Your task to perform on an android device: turn smart compose on in the gmail app Image 0: 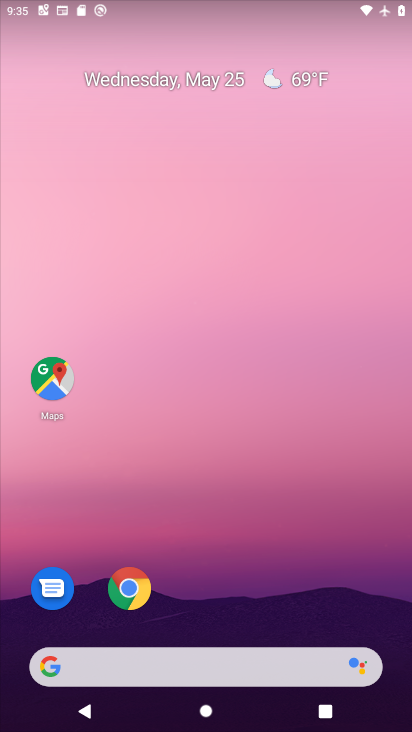
Step 0: drag from (386, 597) to (365, 207)
Your task to perform on an android device: turn smart compose on in the gmail app Image 1: 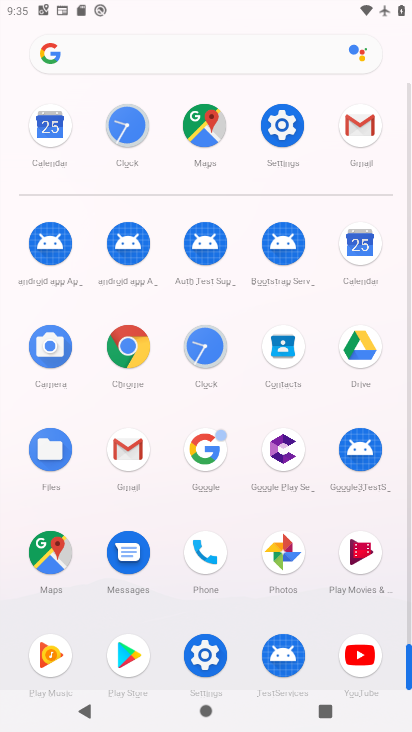
Step 1: click (134, 454)
Your task to perform on an android device: turn smart compose on in the gmail app Image 2: 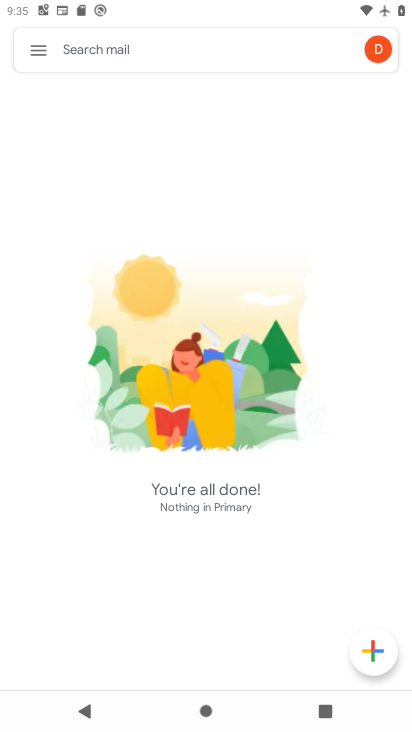
Step 2: click (42, 53)
Your task to perform on an android device: turn smart compose on in the gmail app Image 3: 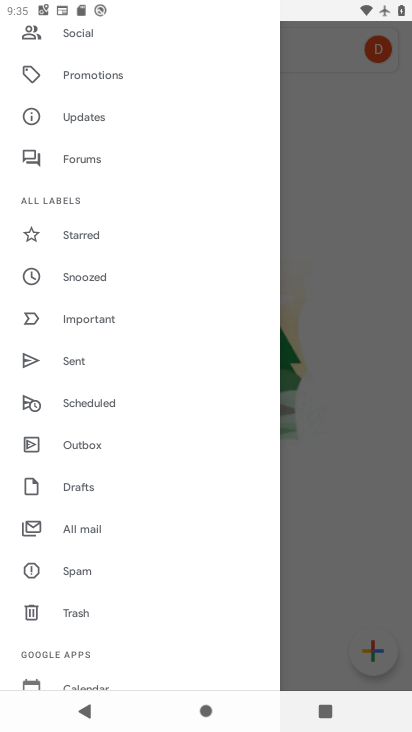
Step 3: drag from (200, 501) to (200, 423)
Your task to perform on an android device: turn smart compose on in the gmail app Image 4: 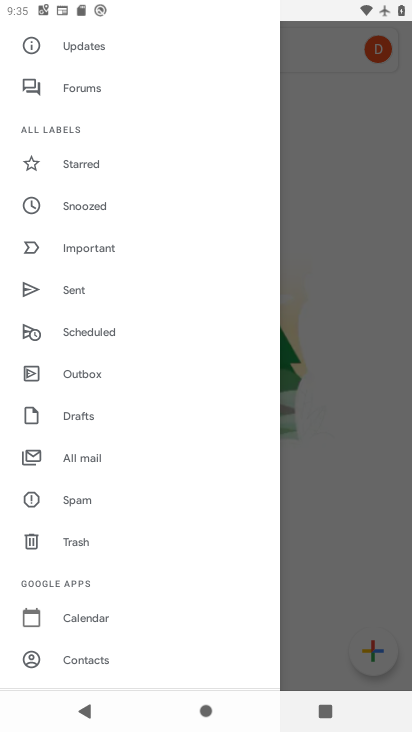
Step 4: drag from (221, 546) to (223, 441)
Your task to perform on an android device: turn smart compose on in the gmail app Image 5: 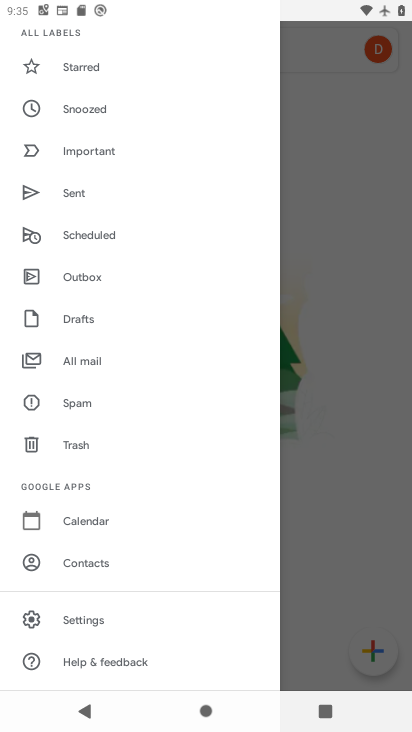
Step 5: drag from (213, 554) to (213, 445)
Your task to perform on an android device: turn smart compose on in the gmail app Image 6: 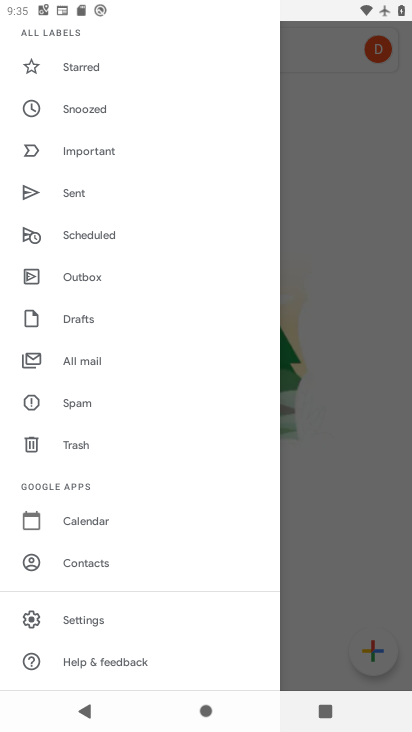
Step 6: click (137, 619)
Your task to perform on an android device: turn smart compose on in the gmail app Image 7: 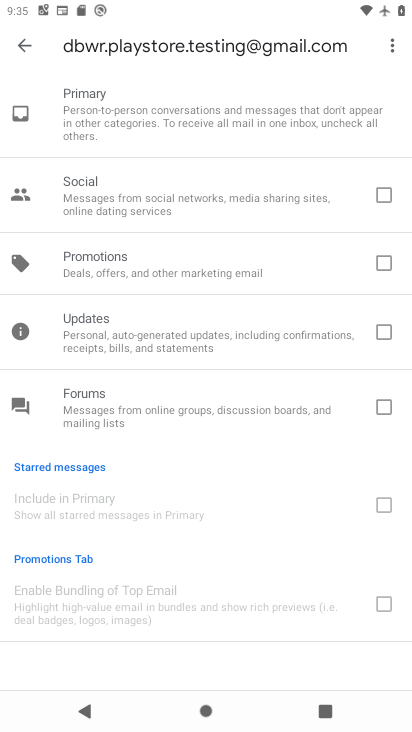
Step 7: drag from (281, 296) to (280, 406)
Your task to perform on an android device: turn smart compose on in the gmail app Image 8: 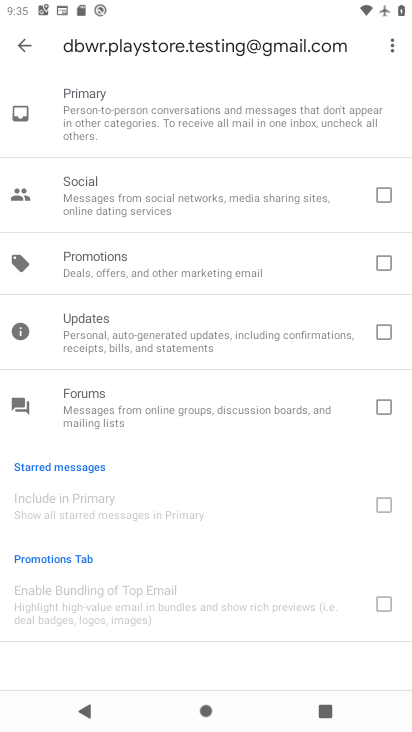
Step 8: click (17, 45)
Your task to perform on an android device: turn smart compose on in the gmail app Image 9: 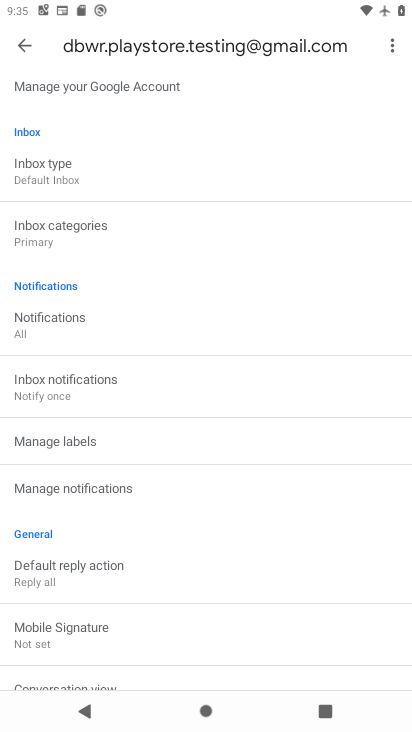
Step 9: task complete